Your task to perform on an android device: Clear the cart on target. Image 0: 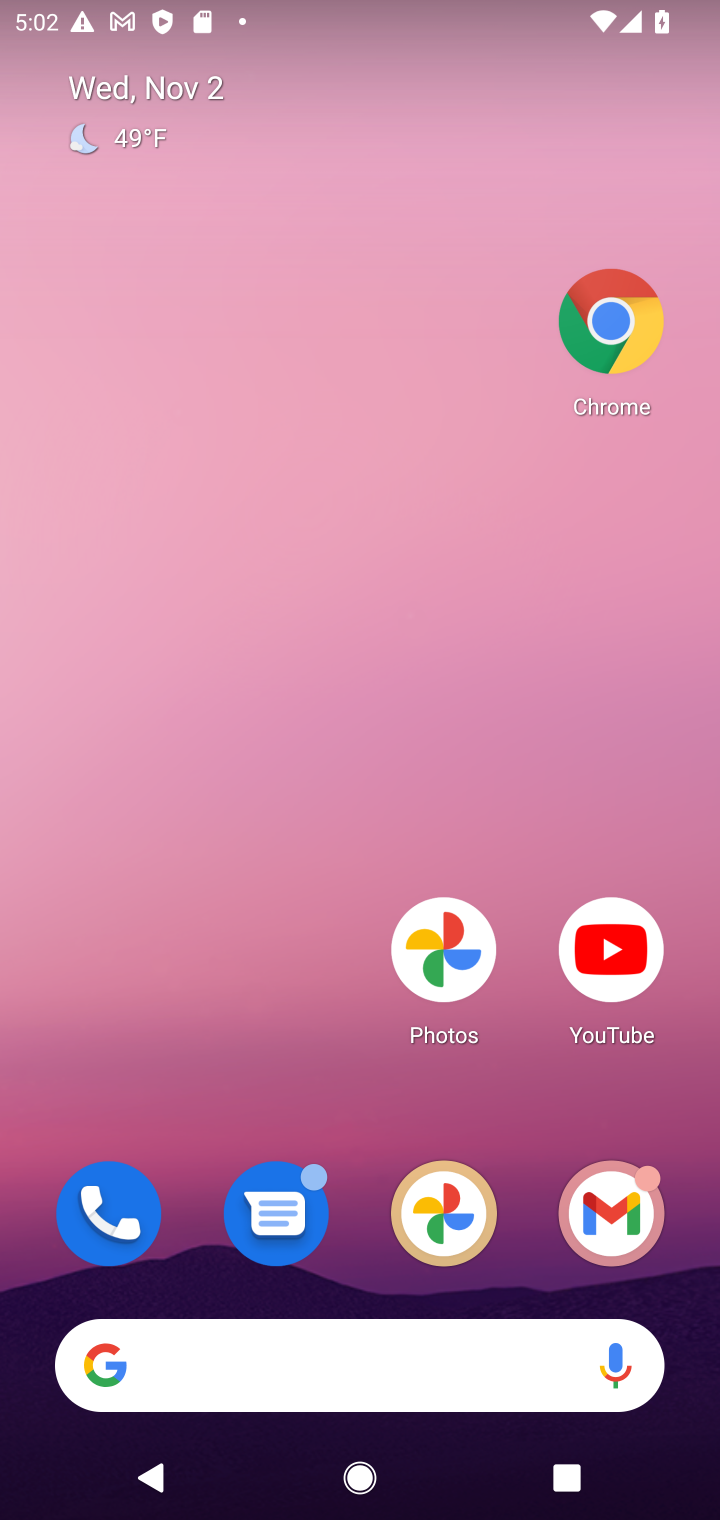
Step 0: drag from (347, 1293) to (374, 981)
Your task to perform on an android device: Clear the cart on target. Image 1: 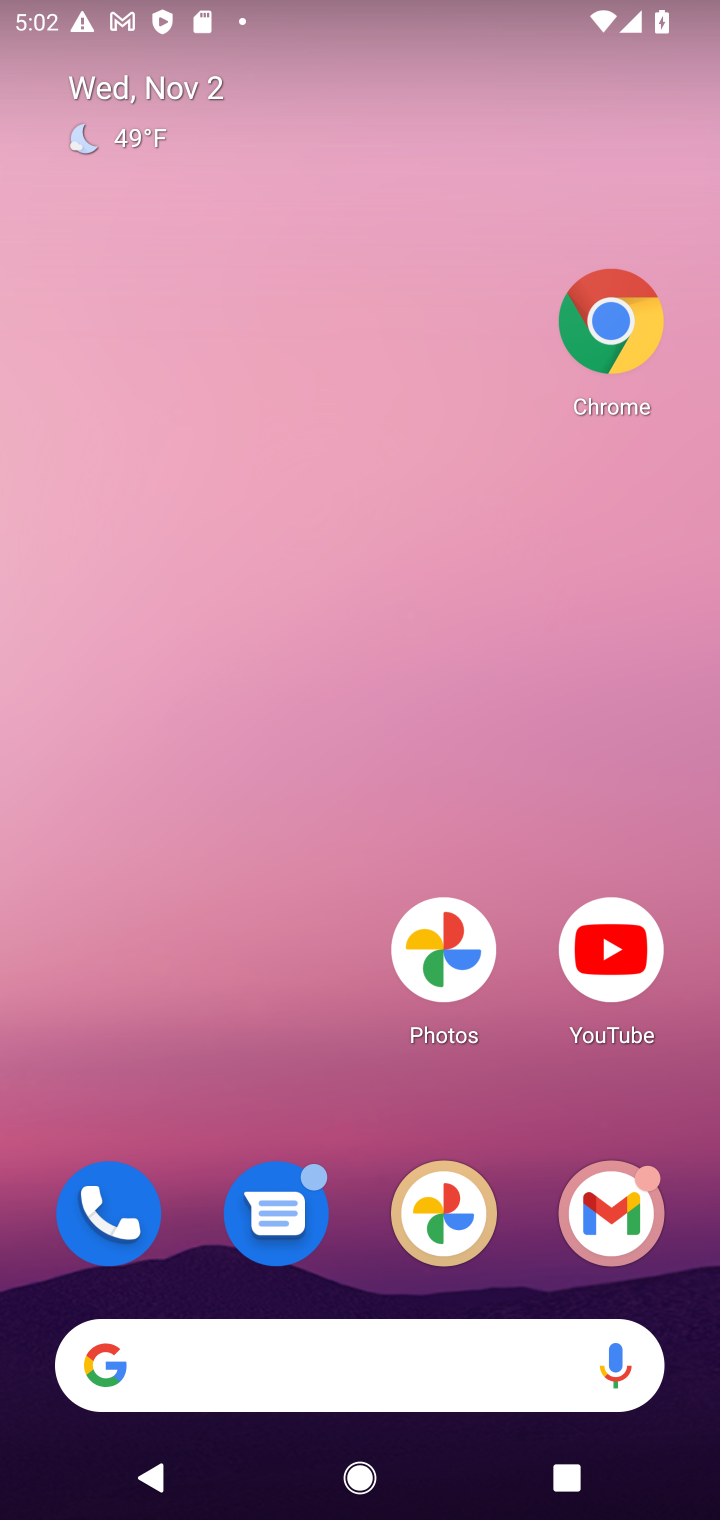
Step 1: drag from (326, 1264) to (343, 717)
Your task to perform on an android device: Clear the cart on target. Image 2: 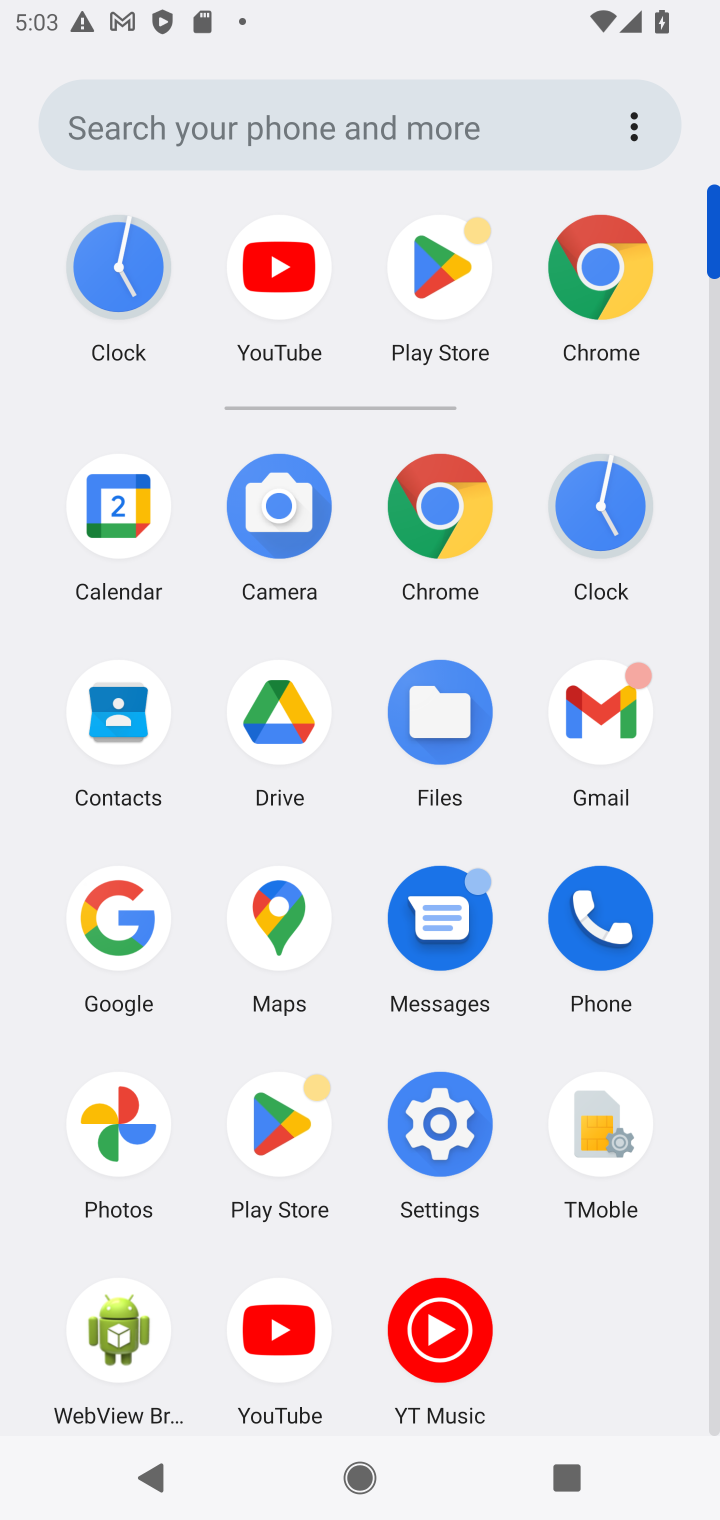
Step 2: click (143, 971)
Your task to perform on an android device: Clear the cart on target. Image 3: 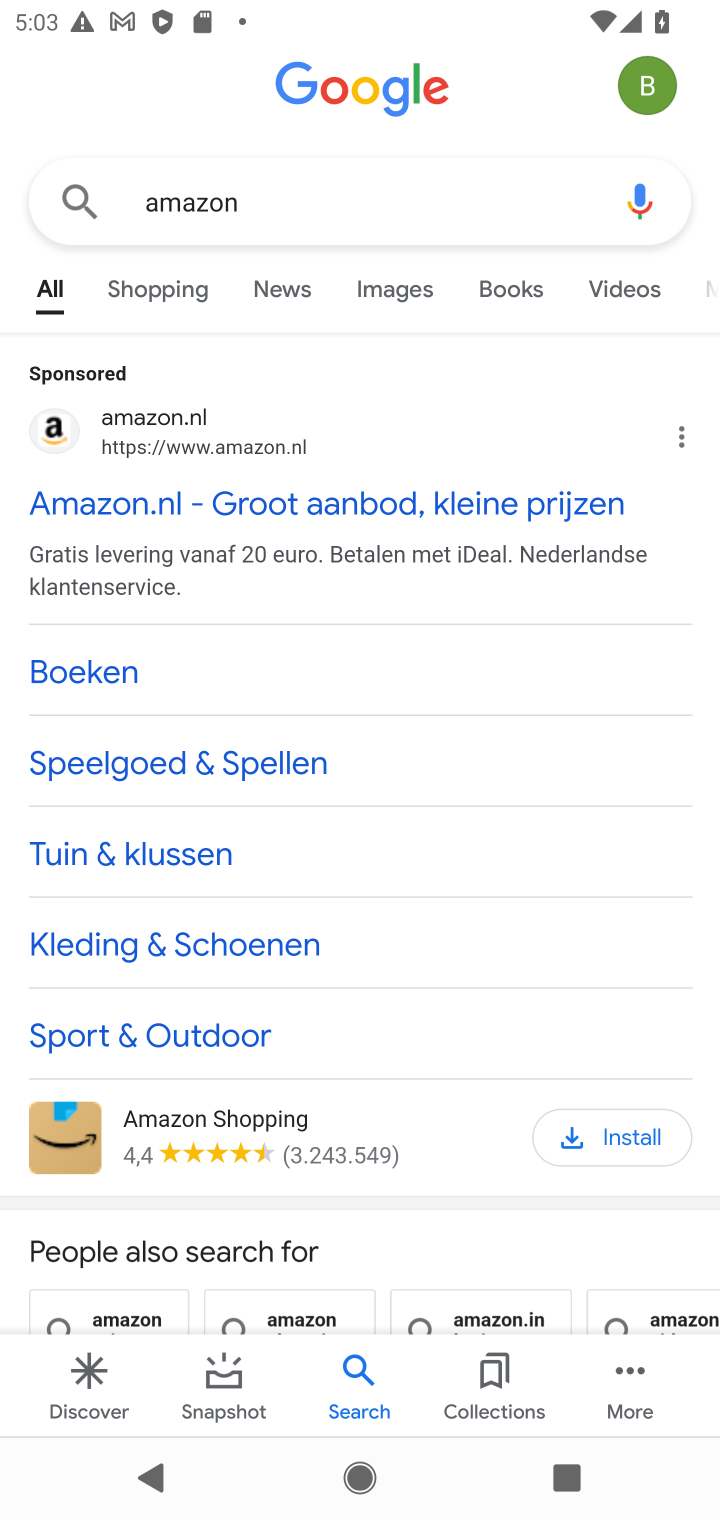
Step 3: click (437, 197)
Your task to perform on an android device: Clear the cart on target. Image 4: 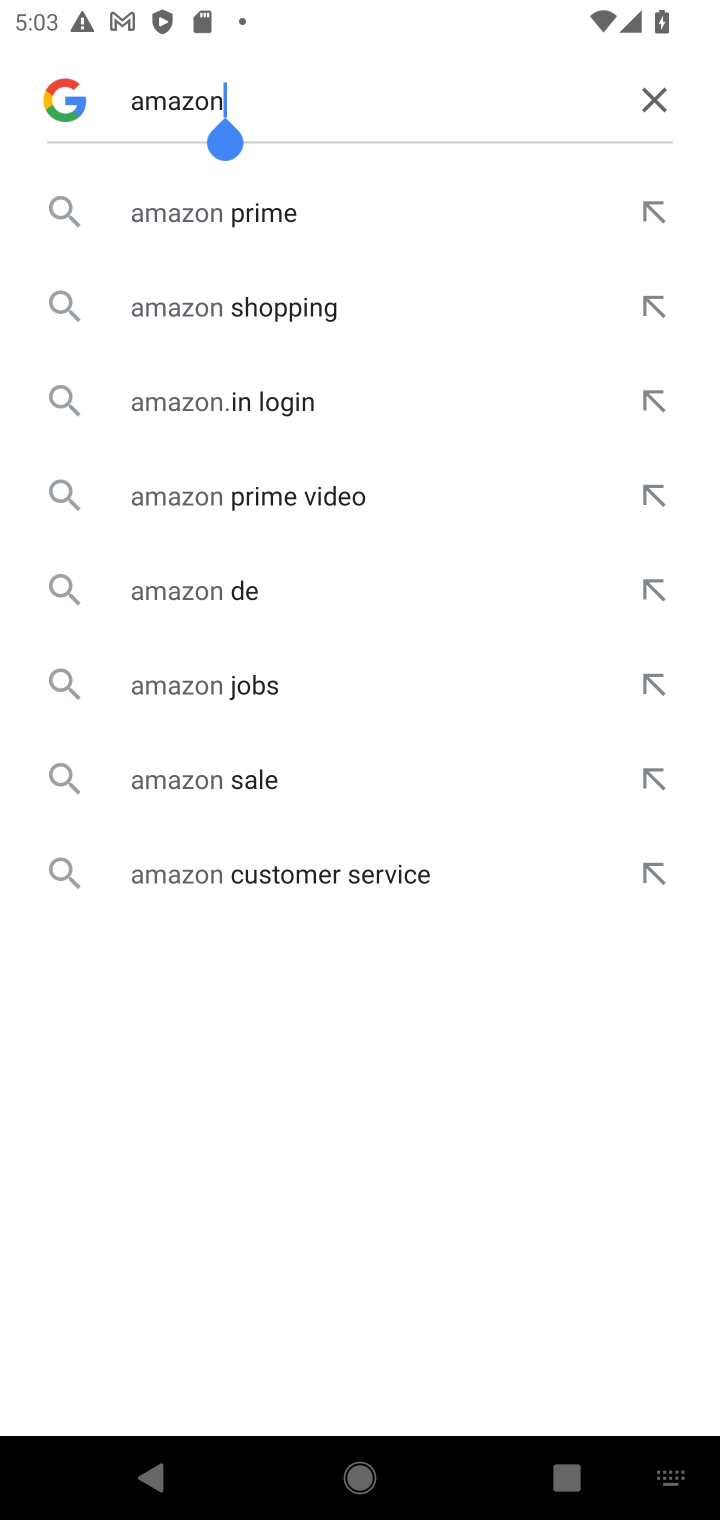
Step 4: click (639, 114)
Your task to perform on an android device: Clear the cart on target. Image 5: 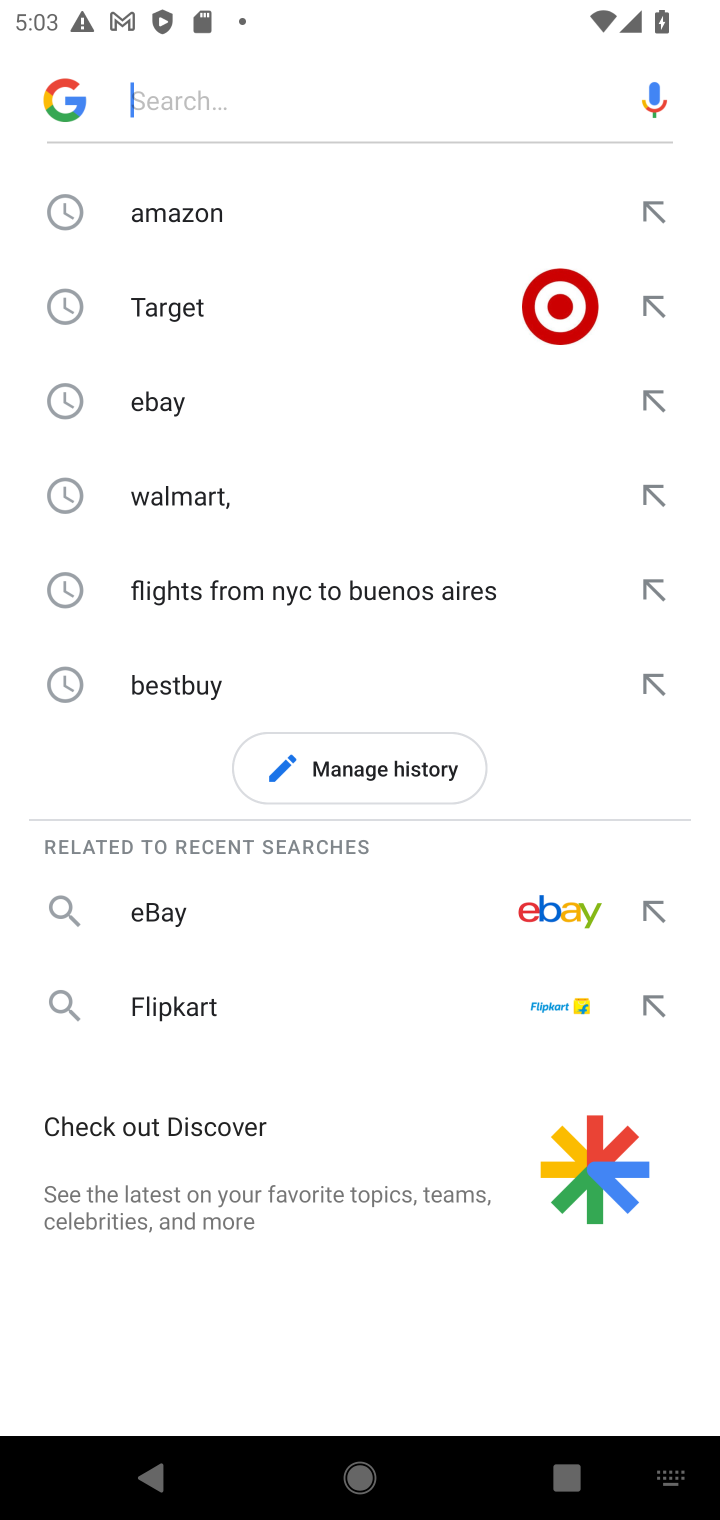
Step 5: click (184, 295)
Your task to perform on an android device: Clear the cart on target. Image 6: 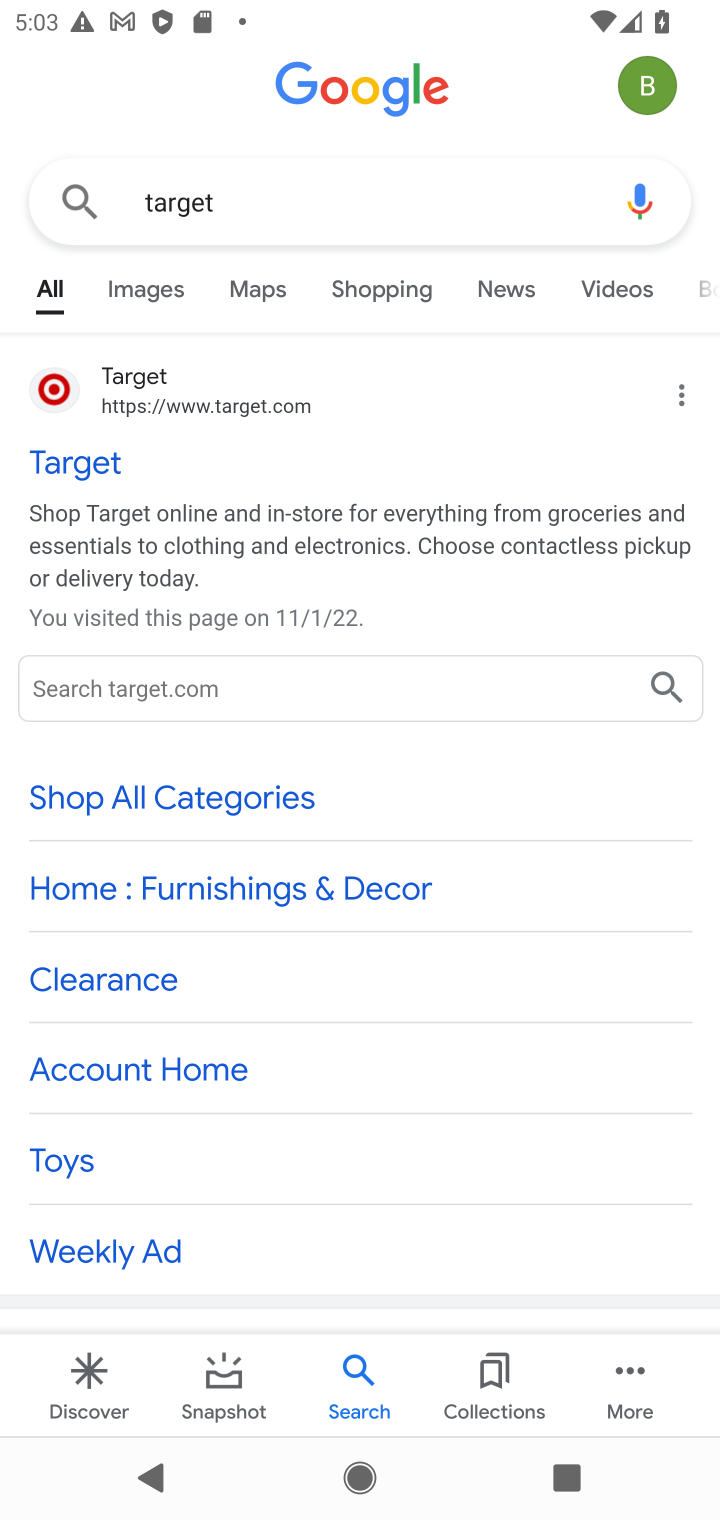
Step 6: click (96, 469)
Your task to perform on an android device: Clear the cart on target. Image 7: 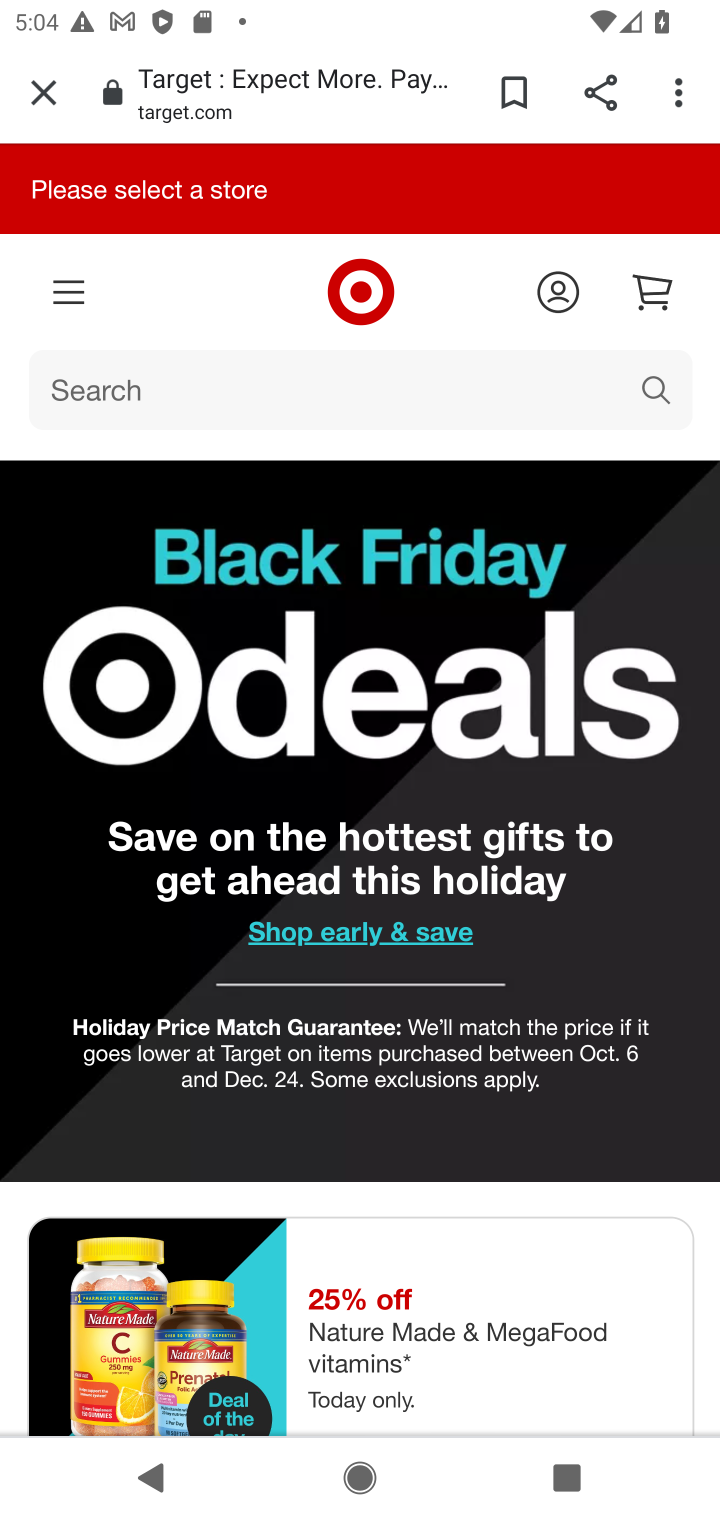
Step 7: click (285, 381)
Your task to perform on an android device: Clear the cart on target. Image 8: 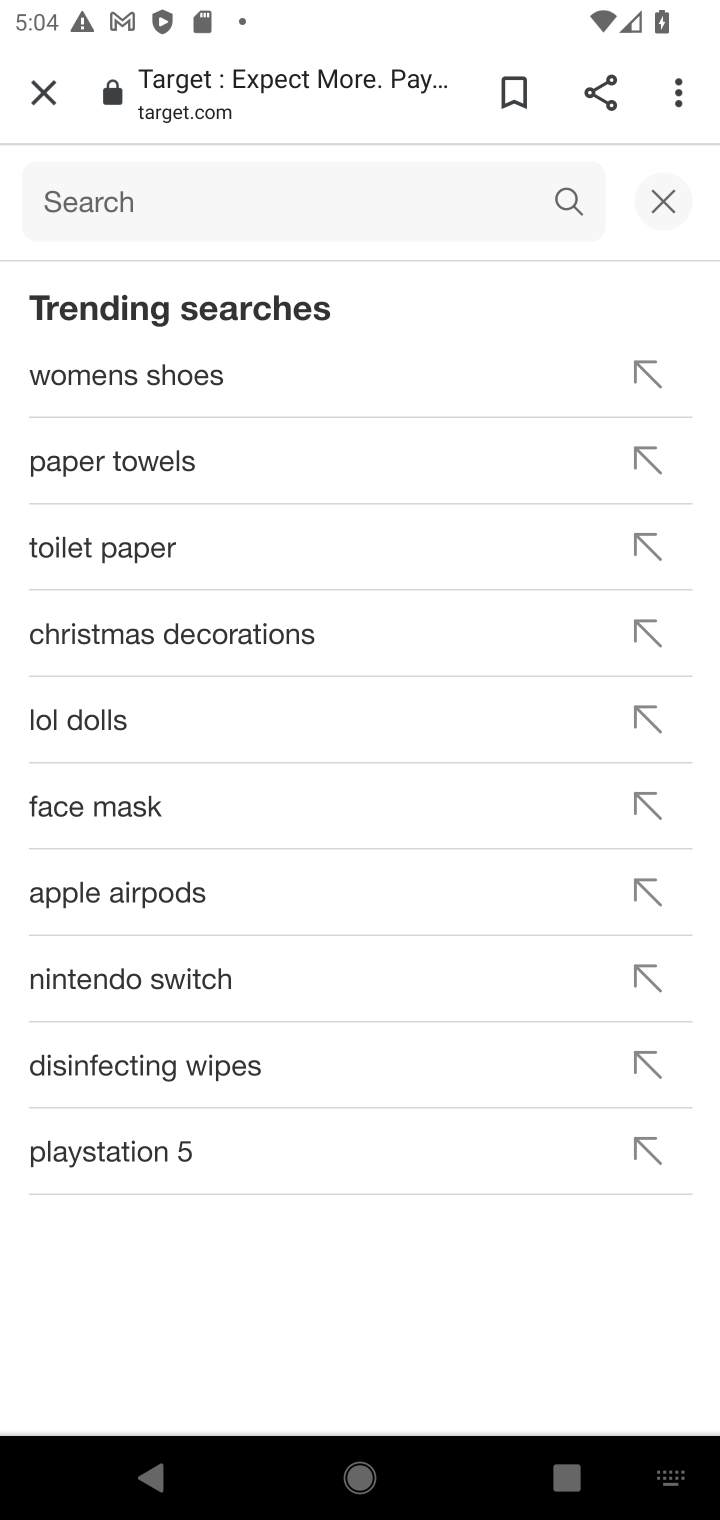
Step 8: click (684, 190)
Your task to perform on an android device: Clear the cart on target. Image 9: 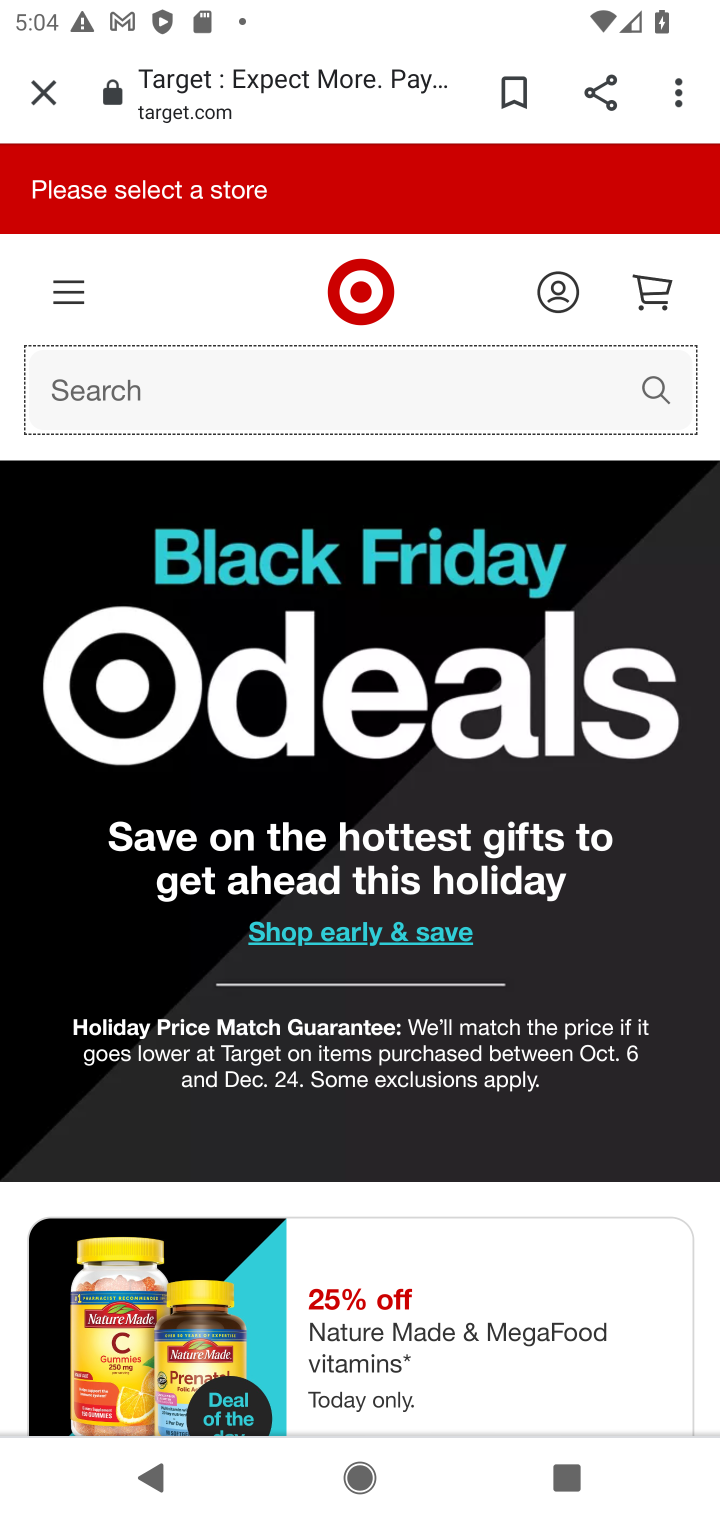
Step 9: click (671, 284)
Your task to perform on an android device: Clear the cart on target. Image 10: 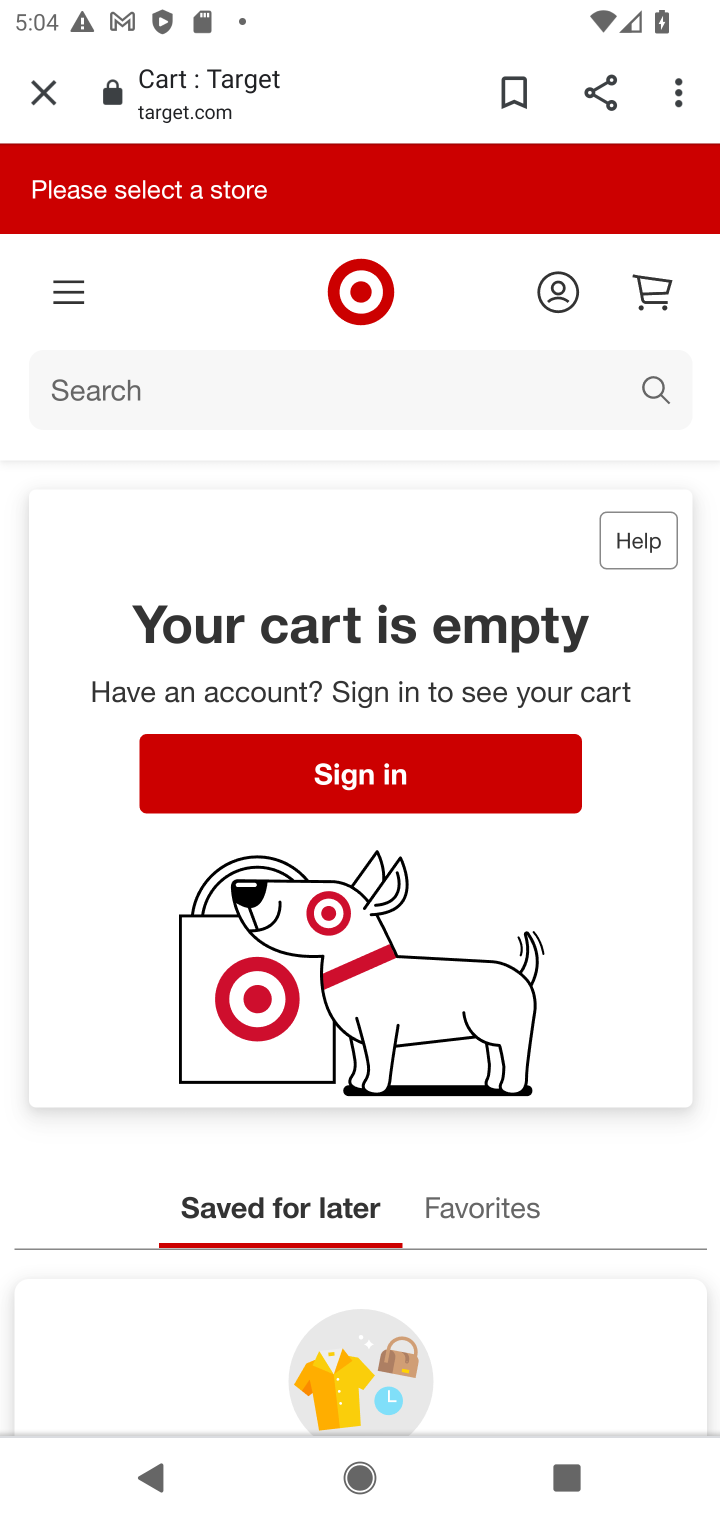
Step 10: task complete